Your task to perform on an android device: change the upload size in google photos Image 0: 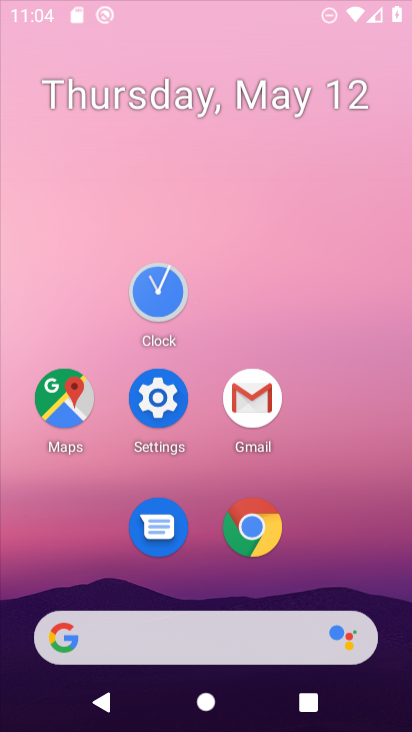
Step 0: click (310, 547)
Your task to perform on an android device: change the upload size in google photos Image 1: 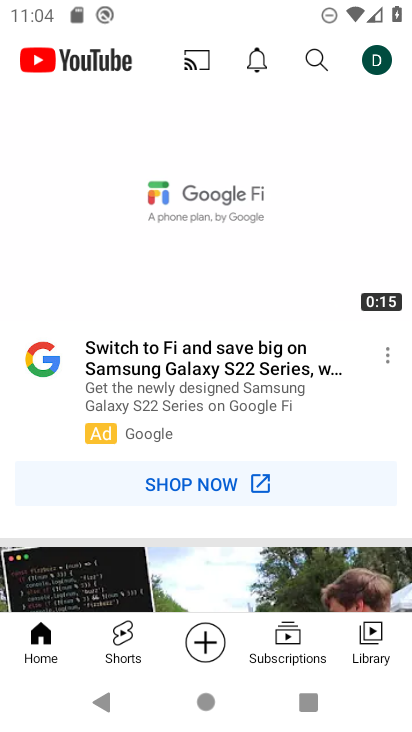
Step 1: press home button
Your task to perform on an android device: change the upload size in google photos Image 2: 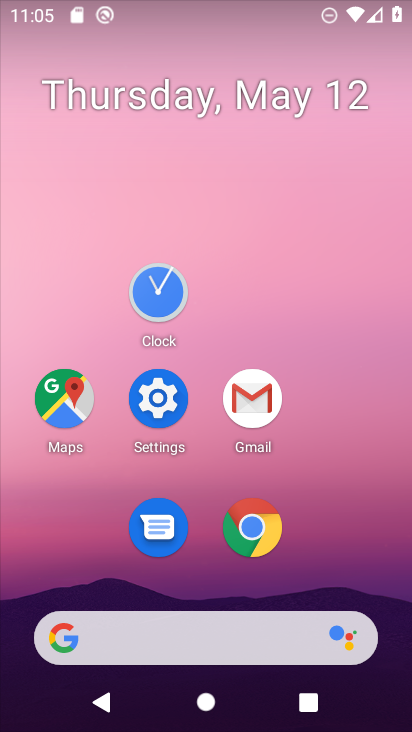
Step 2: drag from (351, 546) to (332, 114)
Your task to perform on an android device: change the upload size in google photos Image 3: 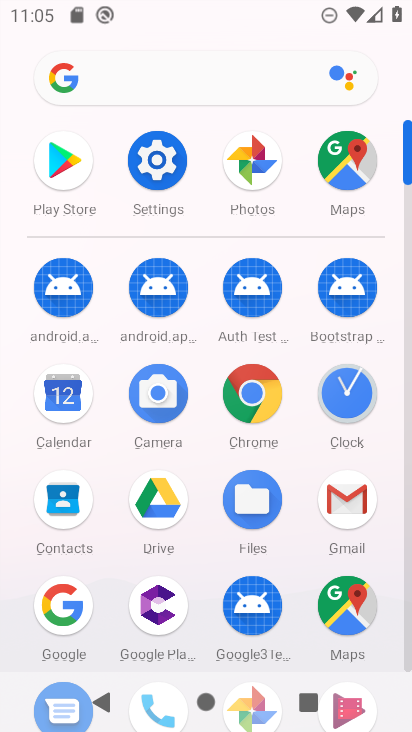
Step 3: click (265, 177)
Your task to perform on an android device: change the upload size in google photos Image 4: 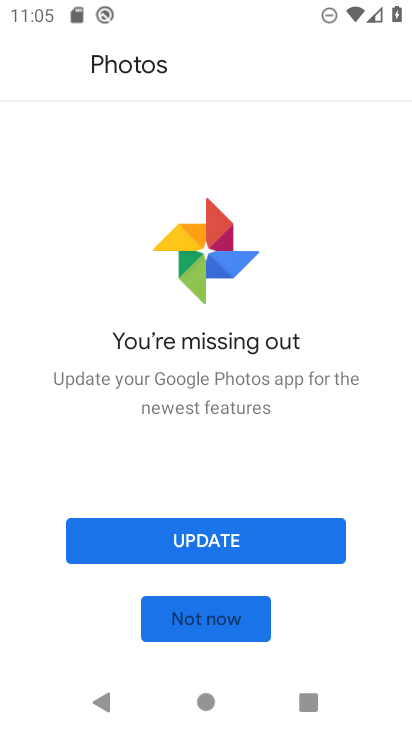
Step 4: click (164, 527)
Your task to perform on an android device: change the upload size in google photos Image 5: 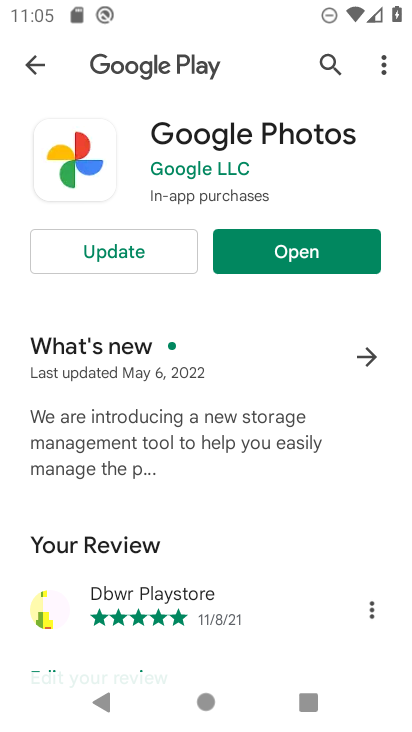
Step 5: click (158, 240)
Your task to perform on an android device: change the upload size in google photos Image 6: 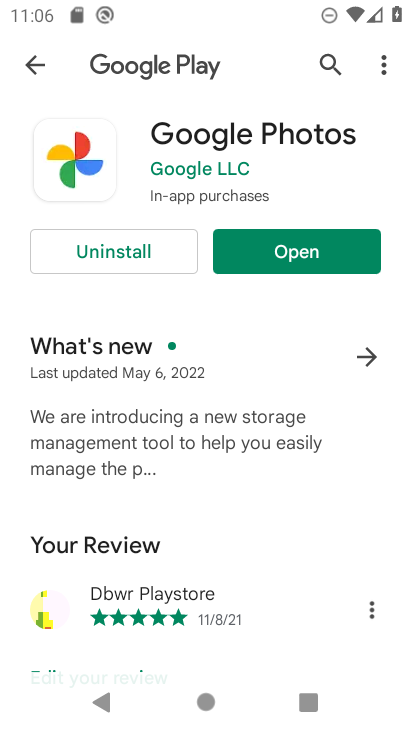
Step 6: click (251, 262)
Your task to perform on an android device: change the upload size in google photos Image 7: 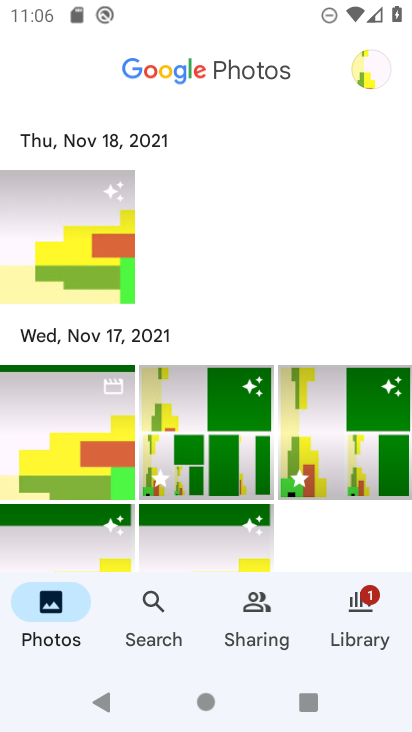
Step 7: click (359, 79)
Your task to perform on an android device: change the upload size in google photos Image 8: 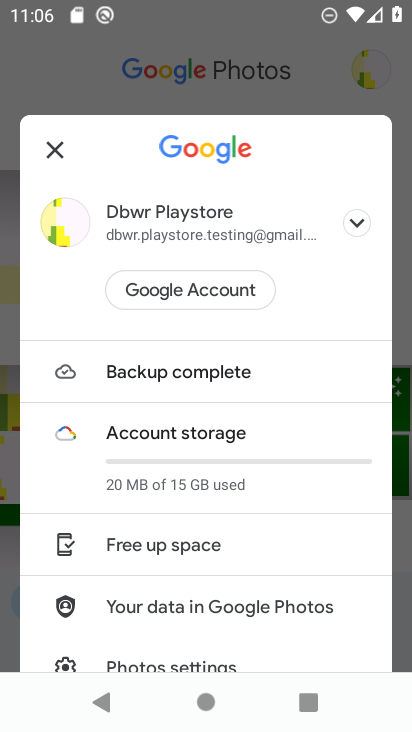
Step 8: drag from (178, 527) to (232, 309)
Your task to perform on an android device: change the upload size in google photos Image 9: 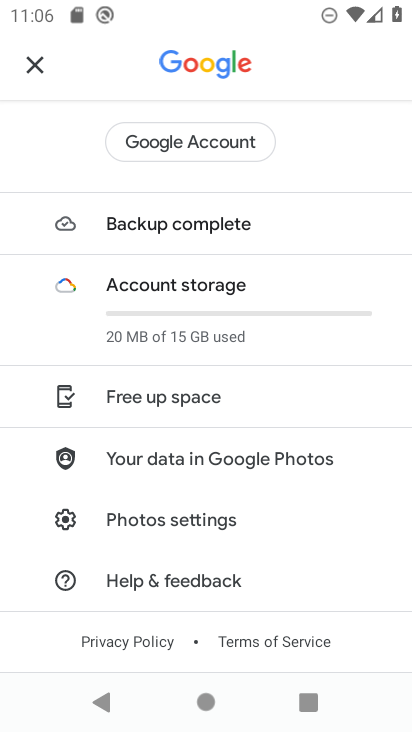
Step 9: click (224, 524)
Your task to perform on an android device: change the upload size in google photos Image 10: 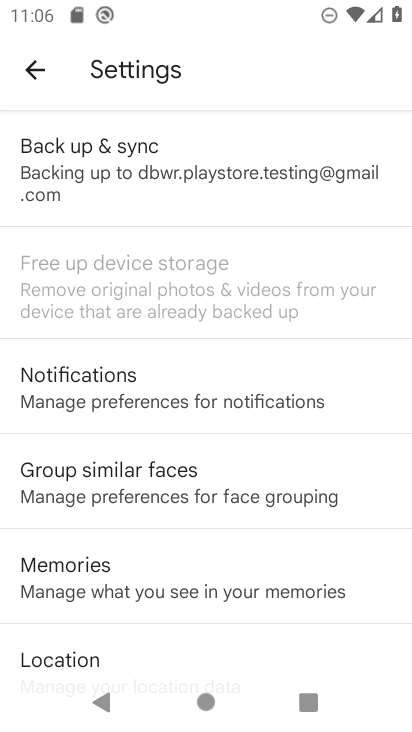
Step 10: click (205, 157)
Your task to perform on an android device: change the upload size in google photos Image 11: 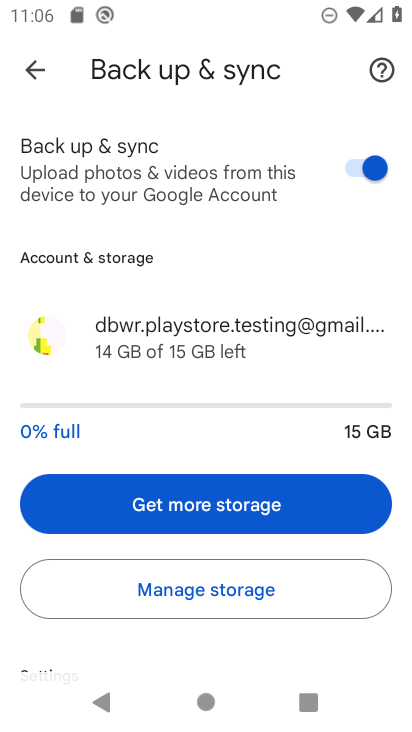
Step 11: click (152, 352)
Your task to perform on an android device: change the upload size in google photos Image 12: 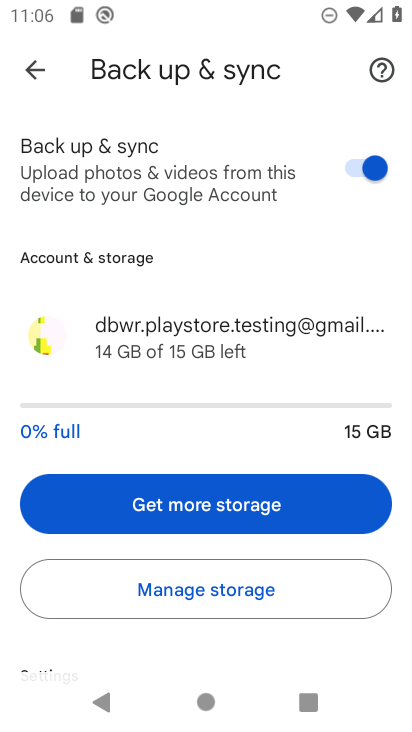
Step 12: task complete